Your task to perform on an android device: What is the news today? Image 0: 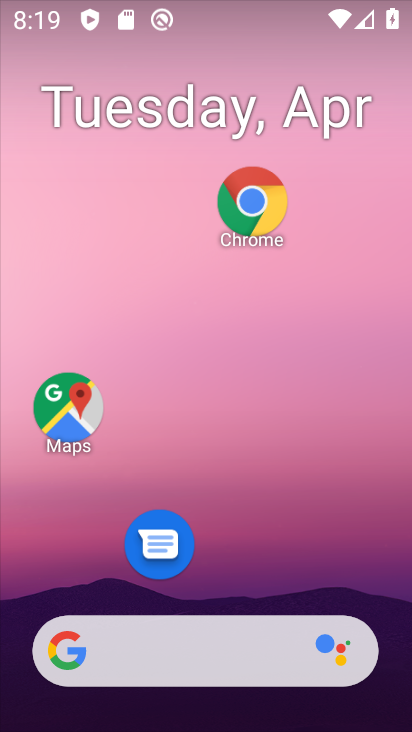
Step 0: click (219, 654)
Your task to perform on an android device: What is the news today? Image 1: 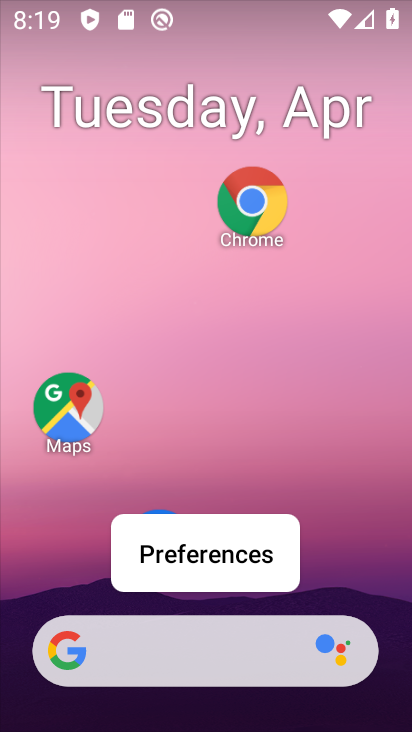
Step 1: click (196, 646)
Your task to perform on an android device: What is the news today? Image 2: 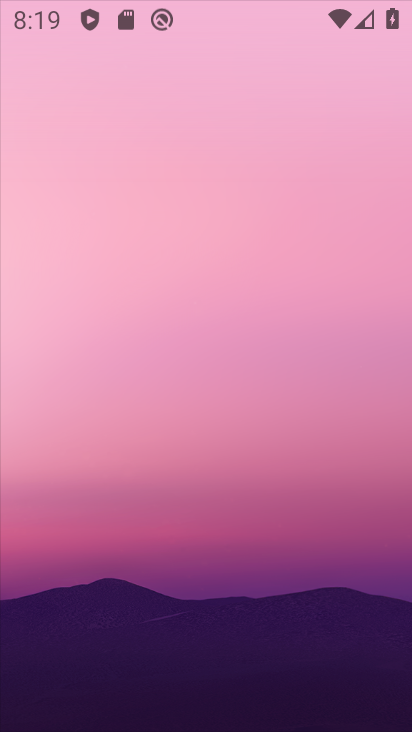
Step 2: click (183, 656)
Your task to perform on an android device: What is the news today? Image 3: 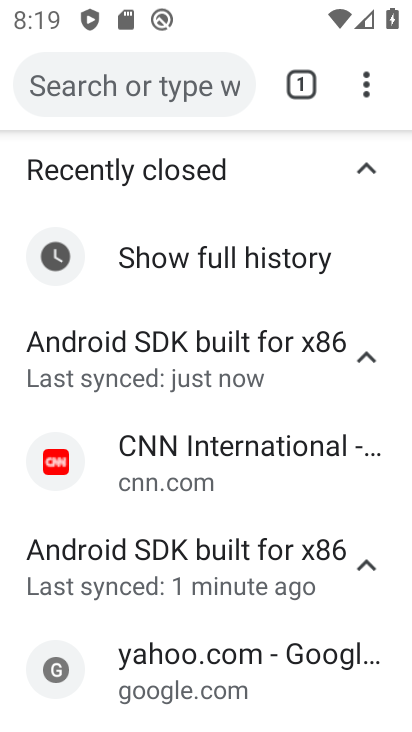
Step 3: click (145, 89)
Your task to perform on an android device: What is the news today? Image 4: 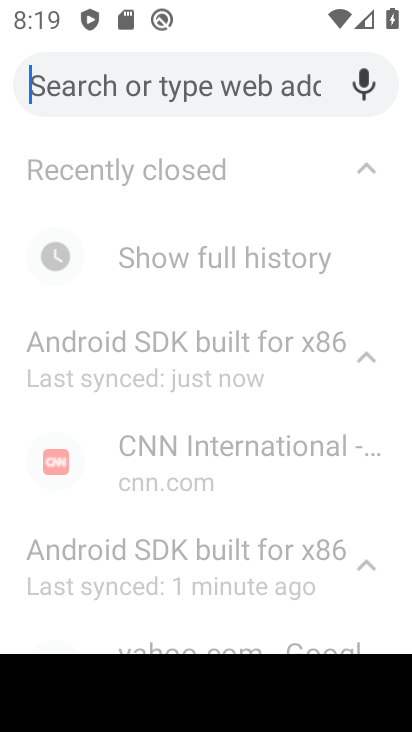
Step 4: press back button
Your task to perform on an android device: What is the news today? Image 5: 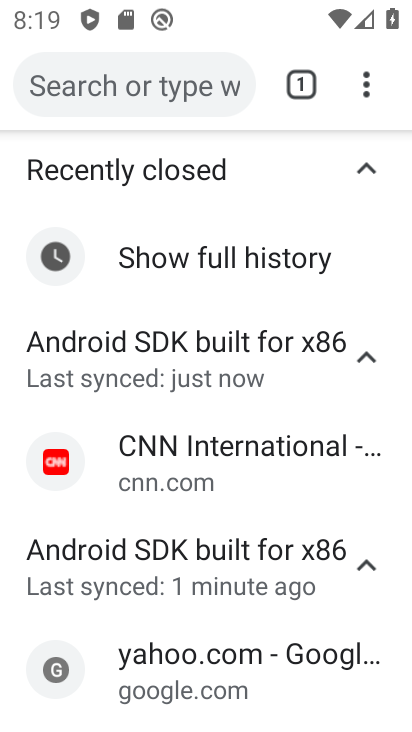
Step 5: click (123, 86)
Your task to perform on an android device: What is the news today? Image 6: 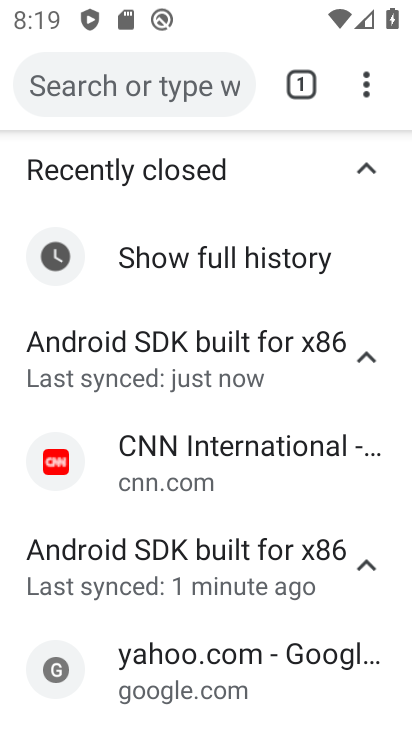
Step 6: type "news today"
Your task to perform on an android device: What is the news today? Image 7: 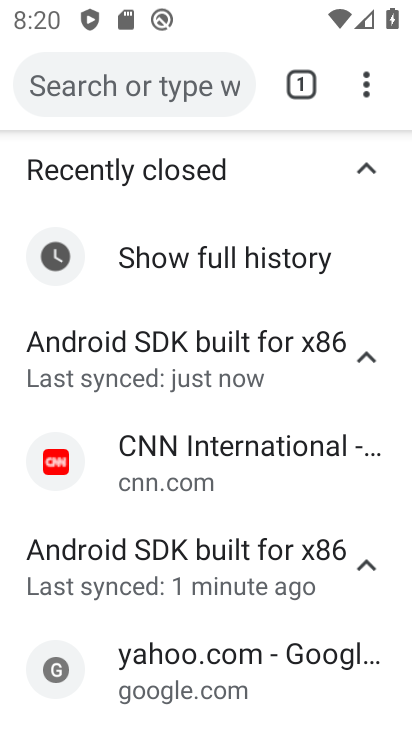
Step 7: click (126, 84)
Your task to perform on an android device: What is the news today? Image 8: 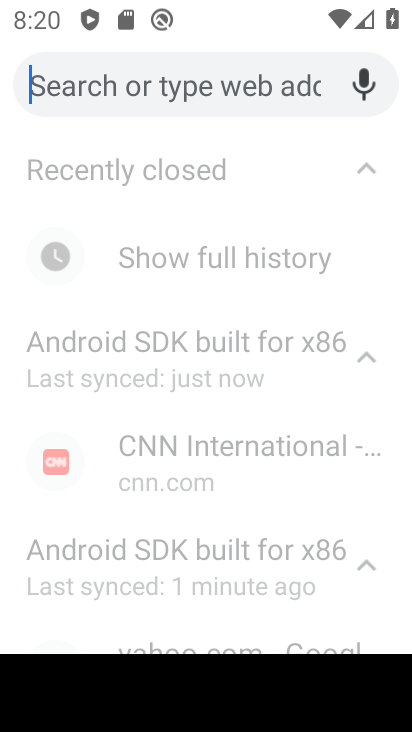
Step 8: type "news today"
Your task to perform on an android device: What is the news today? Image 9: 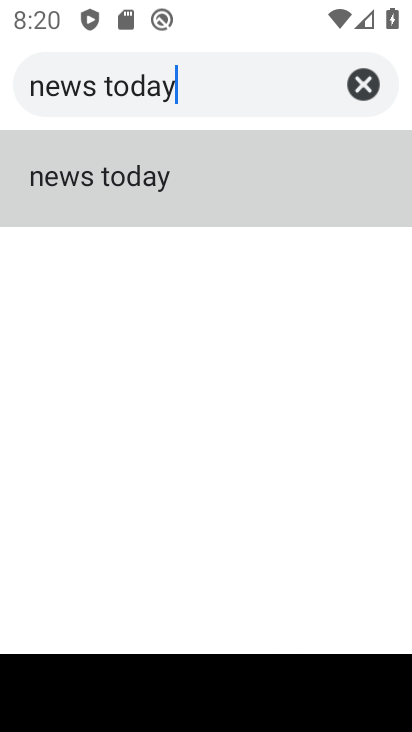
Step 9: click (120, 158)
Your task to perform on an android device: What is the news today? Image 10: 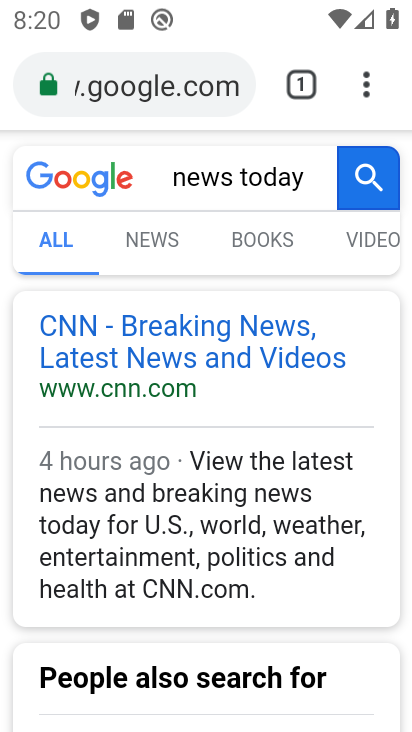
Step 10: drag from (161, 622) to (282, 120)
Your task to perform on an android device: What is the news today? Image 11: 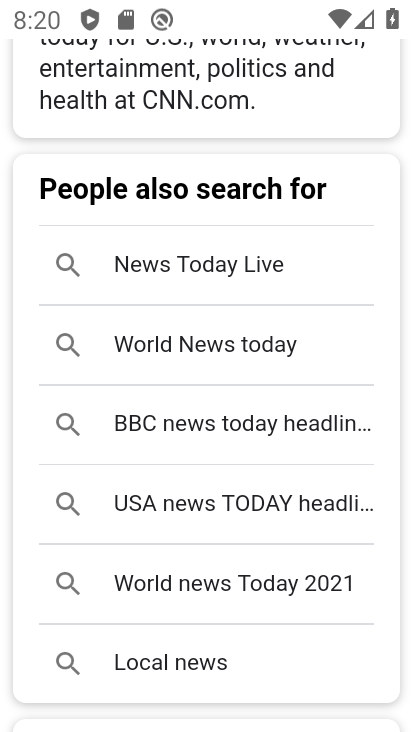
Step 11: click (221, 275)
Your task to perform on an android device: What is the news today? Image 12: 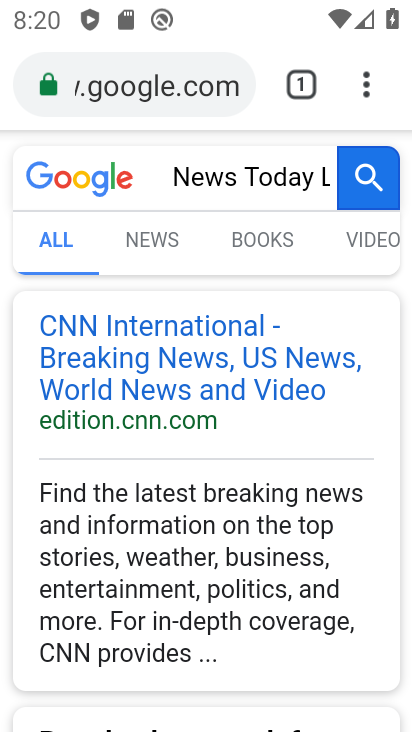
Step 12: task complete